Your task to perform on an android device: open a bookmark in the chrome app Image 0: 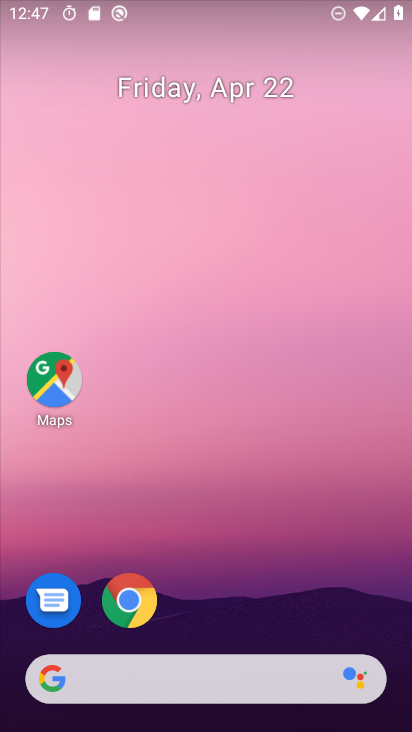
Step 0: click (131, 600)
Your task to perform on an android device: open a bookmark in the chrome app Image 1: 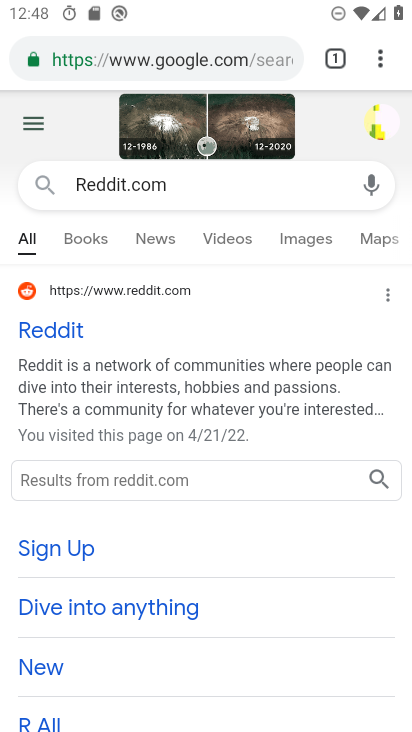
Step 1: click (384, 60)
Your task to perform on an android device: open a bookmark in the chrome app Image 2: 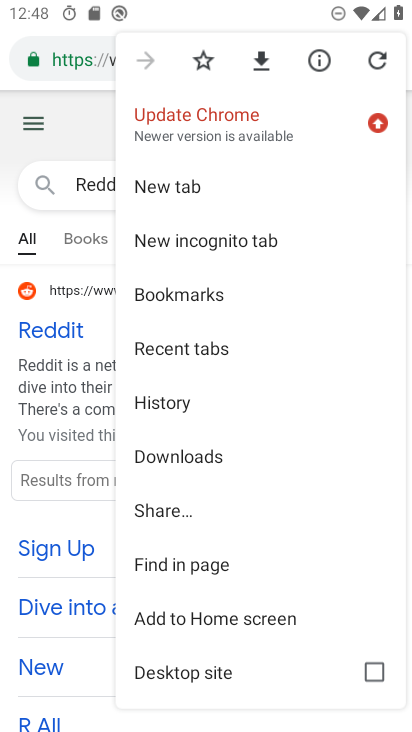
Step 2: click (216, 298)
Your task to perform on an android device: open a bookmark in the chrome app Image 3: 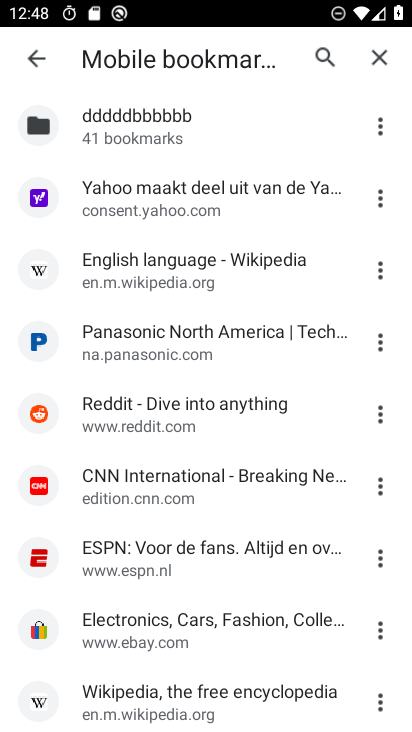
Step 3: task complete